Your task to perform on an android device: see sites visited before in the chrome app Image 0: 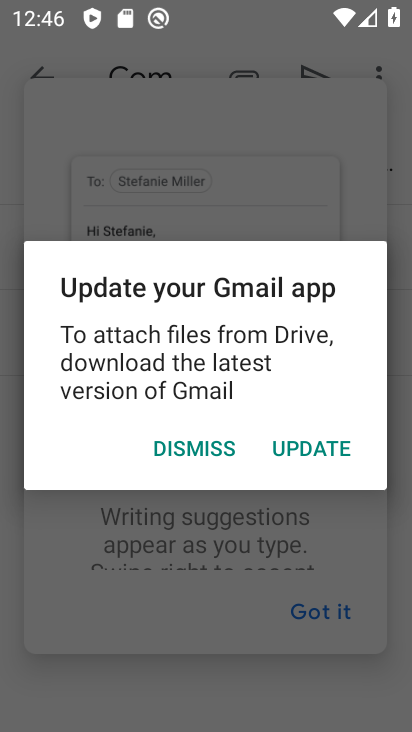
Step 0: press home button
Your task to perform on an android device: see sites visited before in the chrome app Image 1: 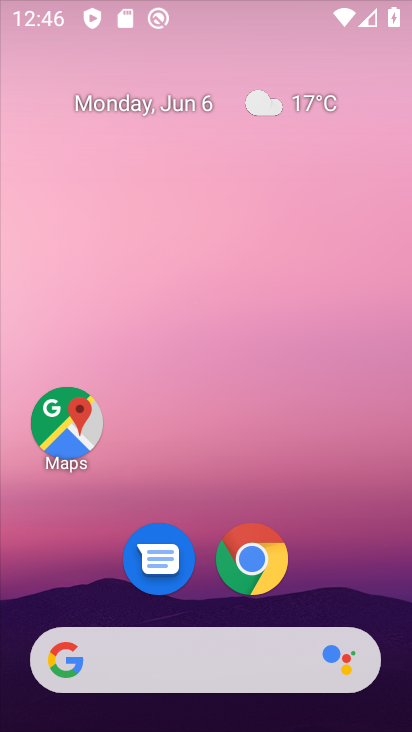
Step 1: drag from (162, 643) to (159, 136)
Your task to perform on an android device: see sites visited before in the chrome app Image 2: 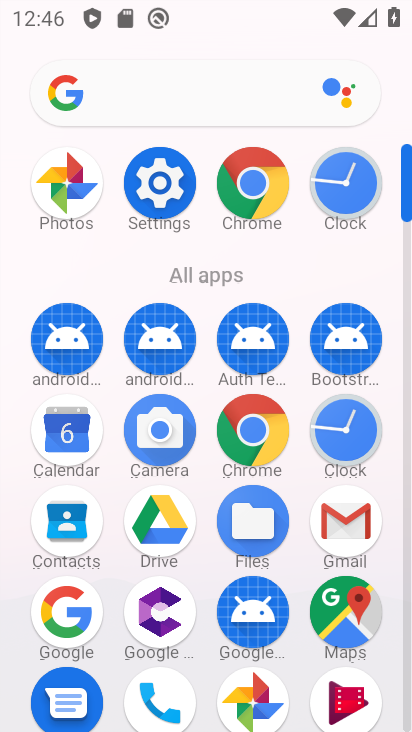
Step 2: click (238, 197)
Your task to perform on an android device: see sites visited before in the chrome app Image 3: 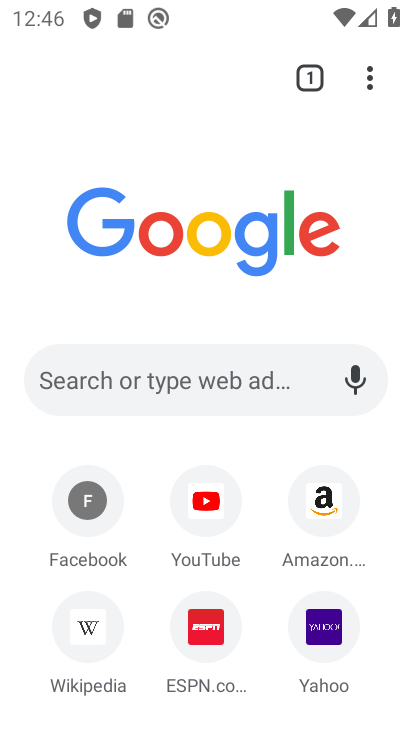
Step 3: click (344, 201)
Your task to perform on an android device: see sites visited before in the chrome app Image 4: 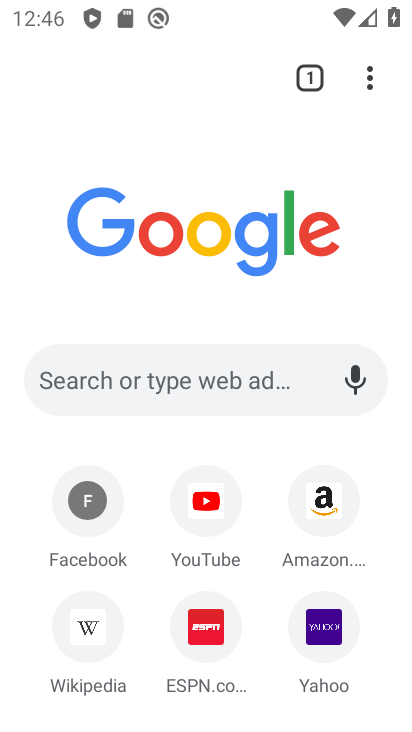
Step 4: click (379, 85)
Your task to perform on an android device: see sites visited before in the chrome app Image 5: 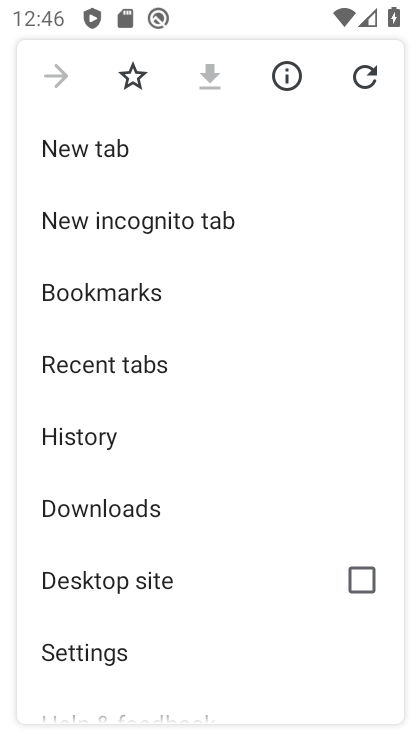
Step 5: click (118, 439)
Your task to perform on an android device: see sites visited before in the chrome app Image 6: 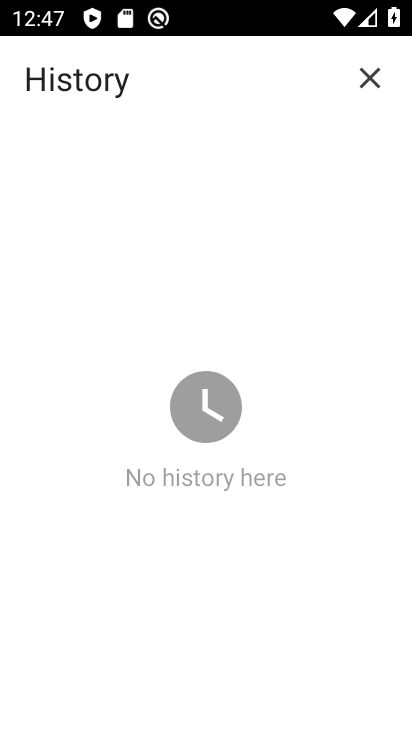
Step 6: task complete